Your task to perform on an android device: Turn on the flashlight Image 0: 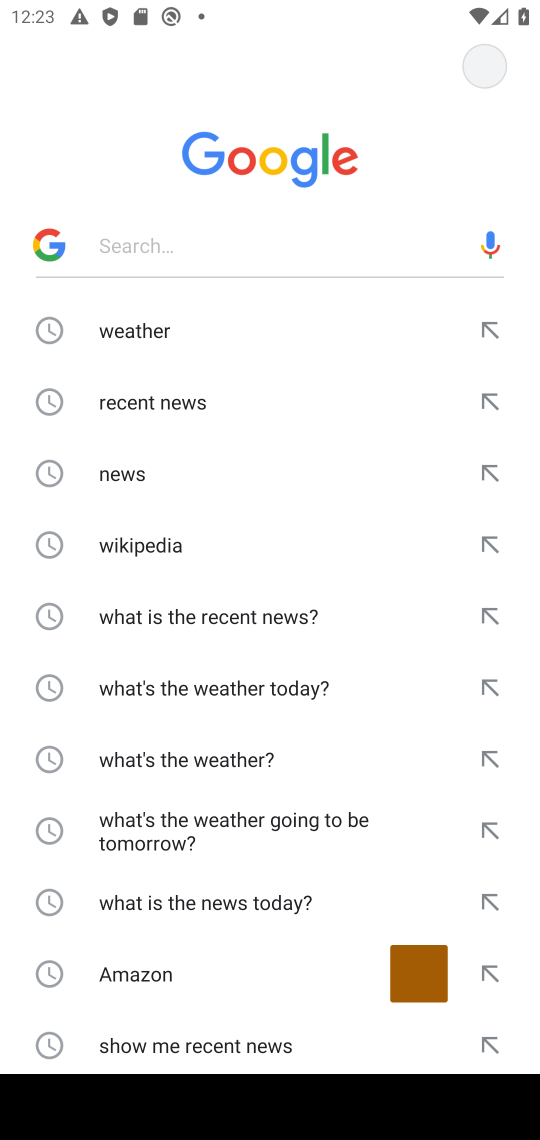
Step 0: press back button
Your task to perform on an android device: Turn on the flashlight Image 1: 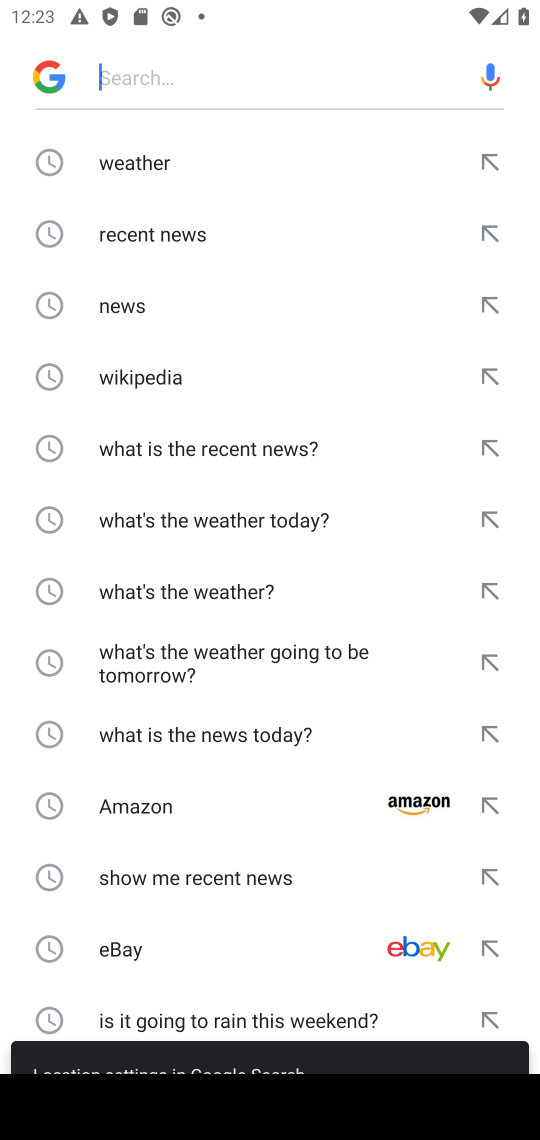
Step 1: press back button
Your task to perform on an android device: Turn on the flashlight Image 2: 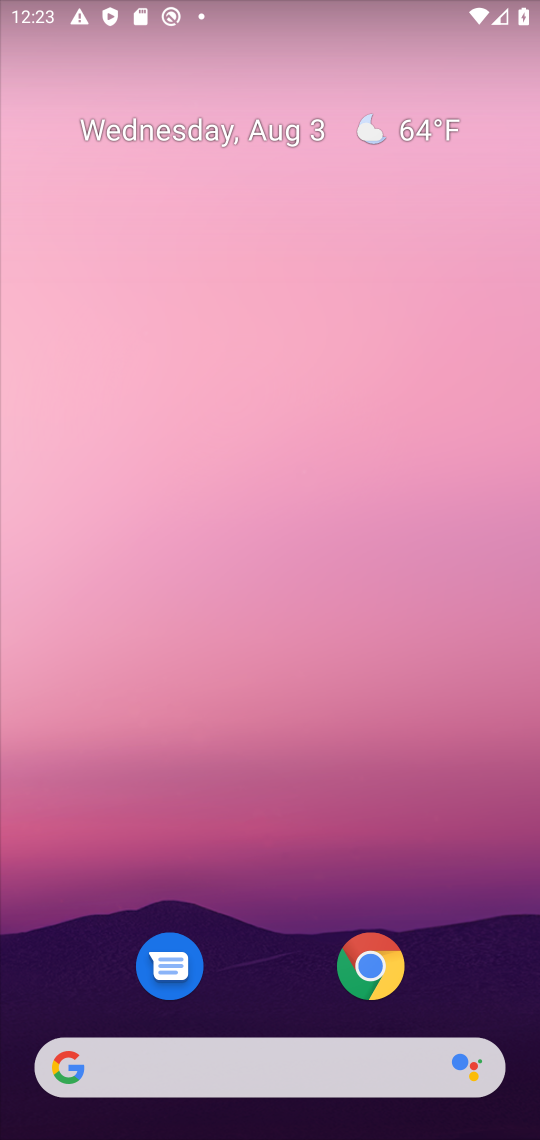
Step 2: press back button
Your task to perform on an android device: Turn on the flashlight Image 3: 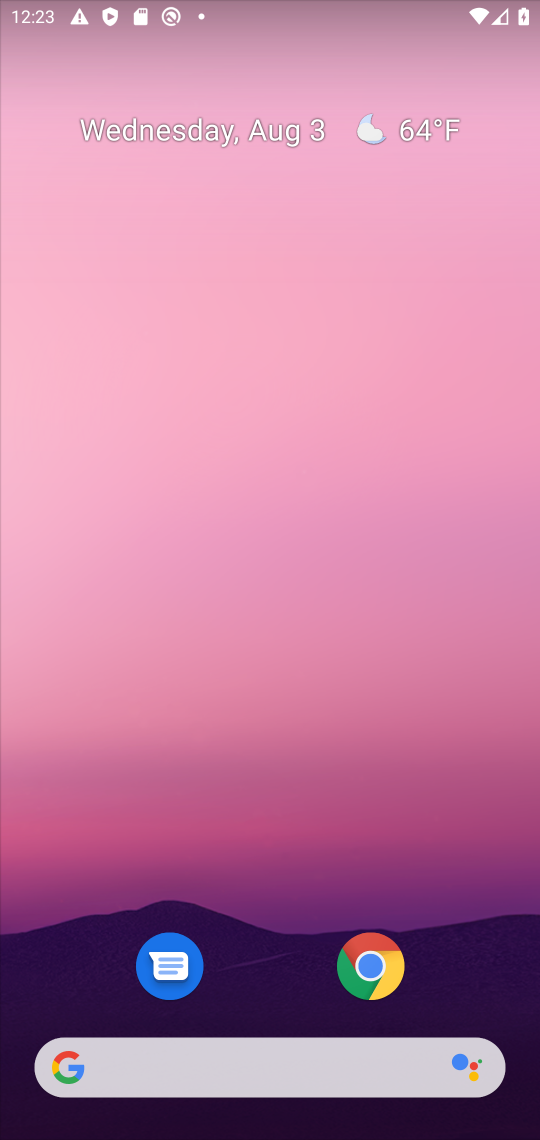
Step 3: click (213, 376)
Your task to perform on an android device: Turn on the flashlight Image 4: 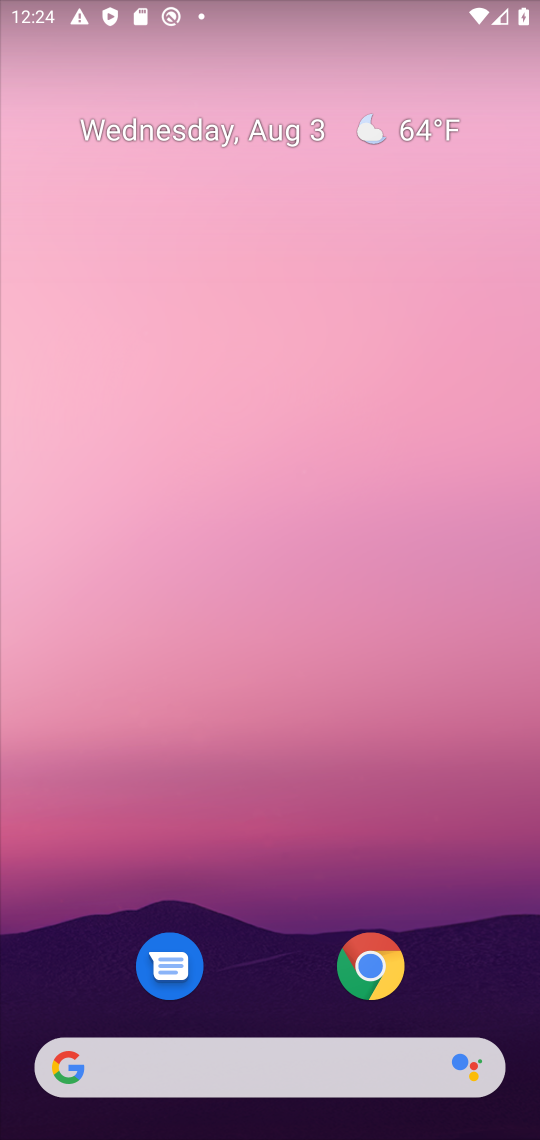
Step 4: drag from (251, 898) to (231, 371)
Your task to perform on an android device: Turn on the flashlight Image 5: 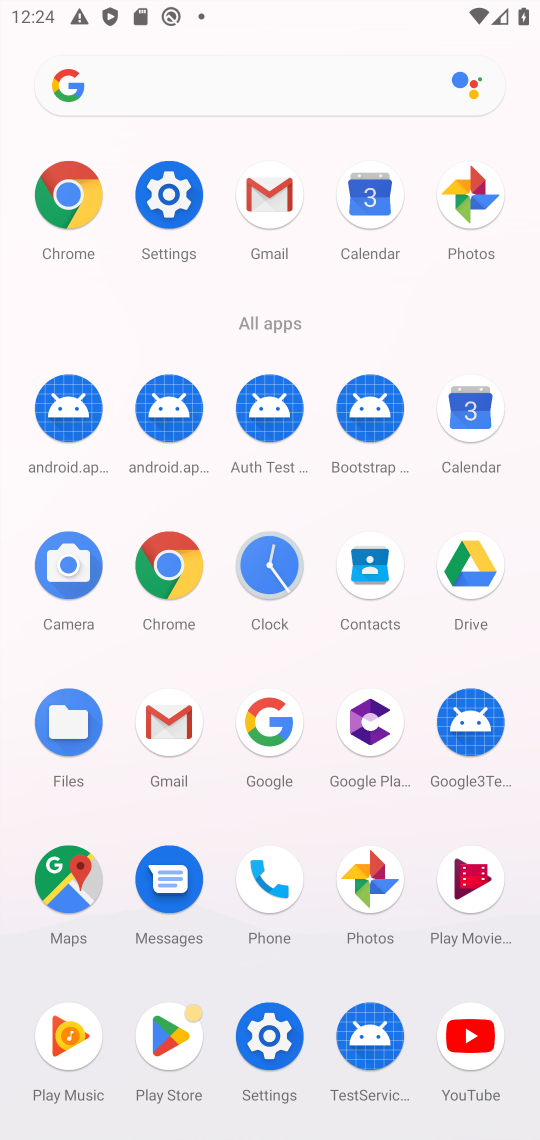
Step 5: click (182, 199)
Your task to perform on an android device: Turn on the flashlight Image 6: 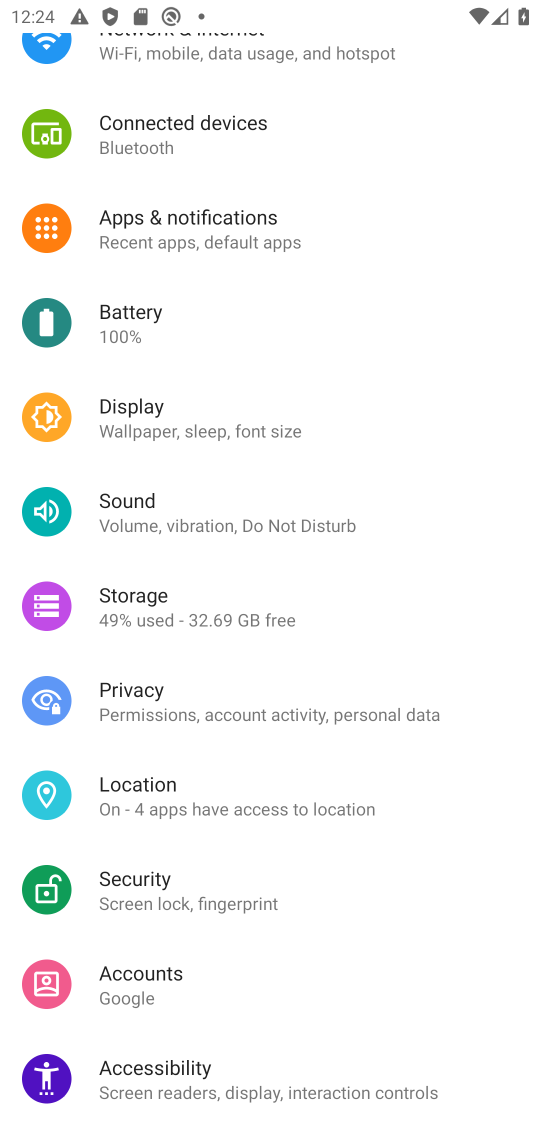
Step 6: task complete